Your task to perform on an android device: check battery use Image 0: 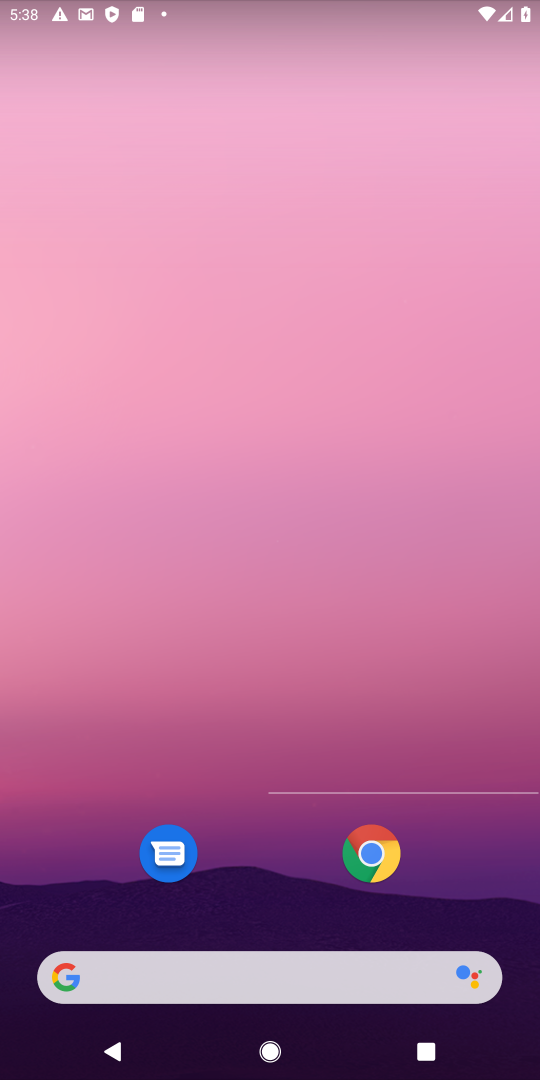
Step 0: drag from (417, 565) to (394, 271)
Your task to perform on an android device: check battery use Image 1: 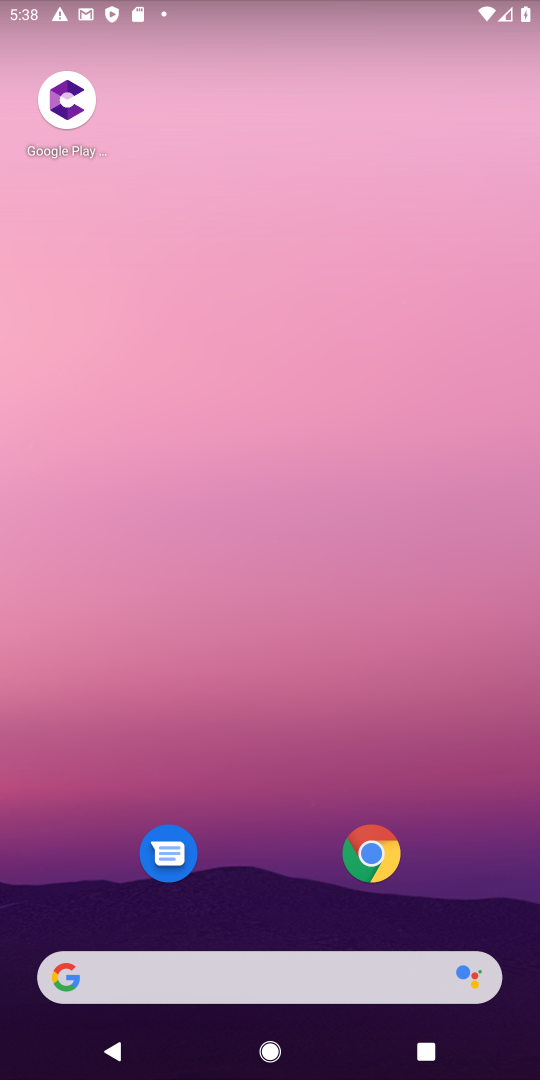
Step 1: drag from (458, 926) to (345, 284)
Your task to perform on an android device: check battery use Image 2: 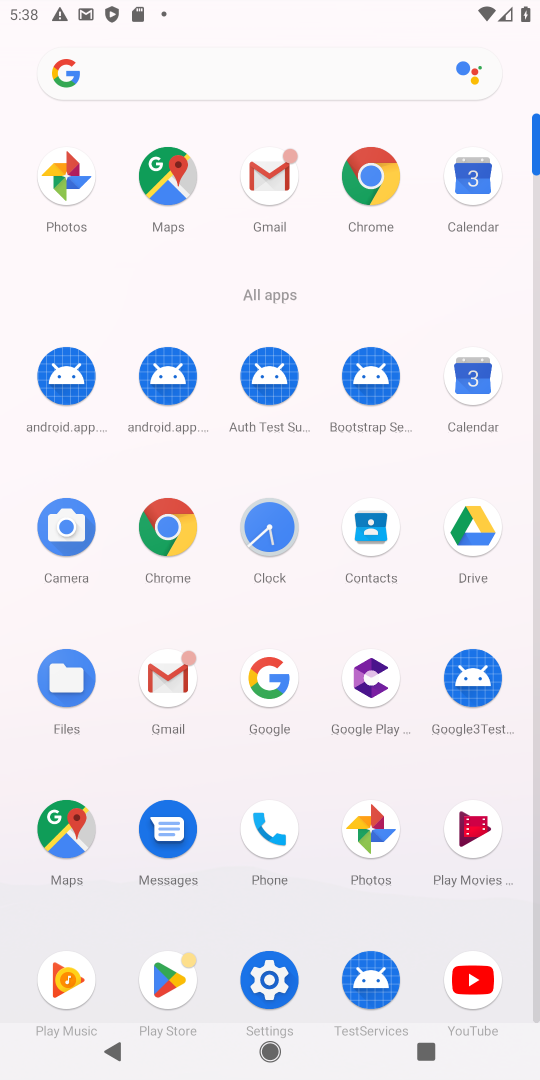
Step 2: click (272, 975)
Your task to perform on an android device: check battery use Image 3: 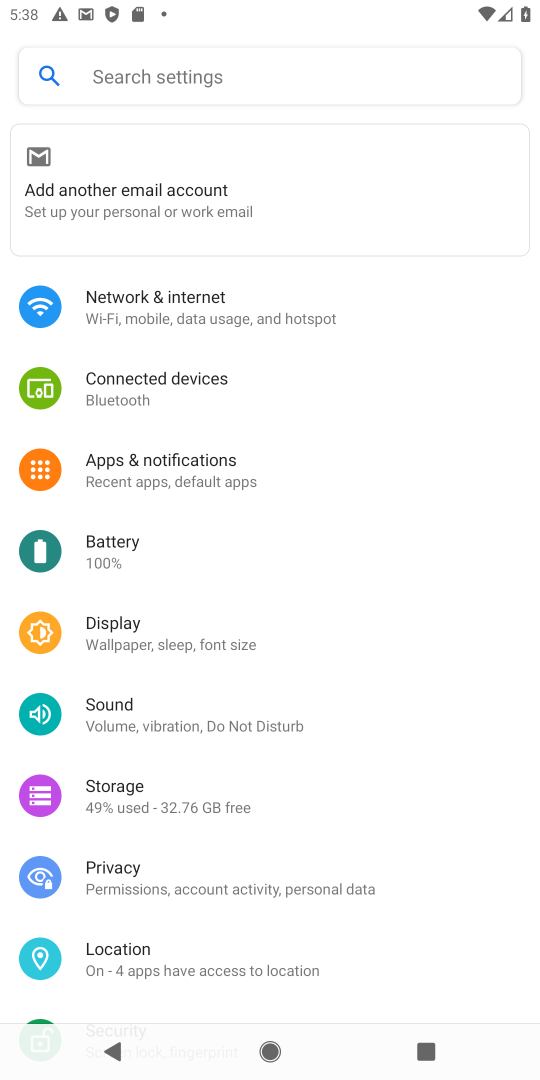
Step 3: click (160, 539)
Your task to perform on an android device: check battery use Image 4: 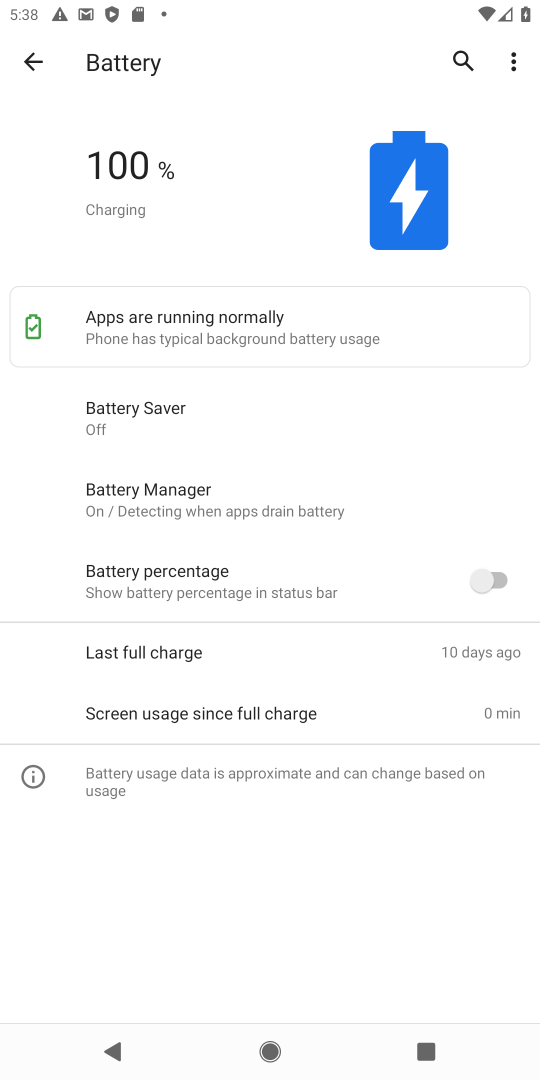
Step 4: click (508, 53)
Your task to perform on an android device: check battery use Image 5: 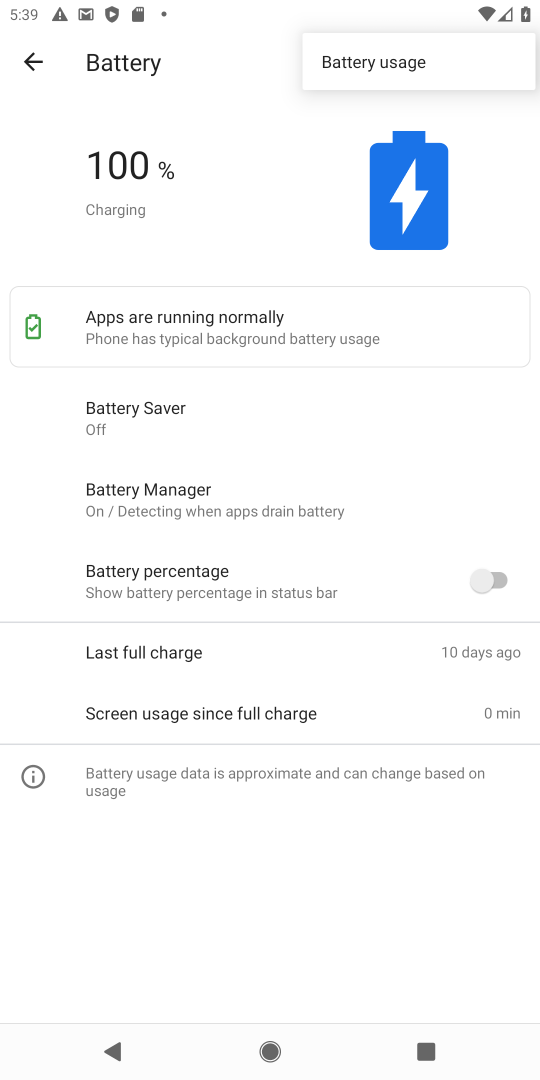
Step 5: click (371, 63)
Your task to perform on an android device: check battery use Image 6: 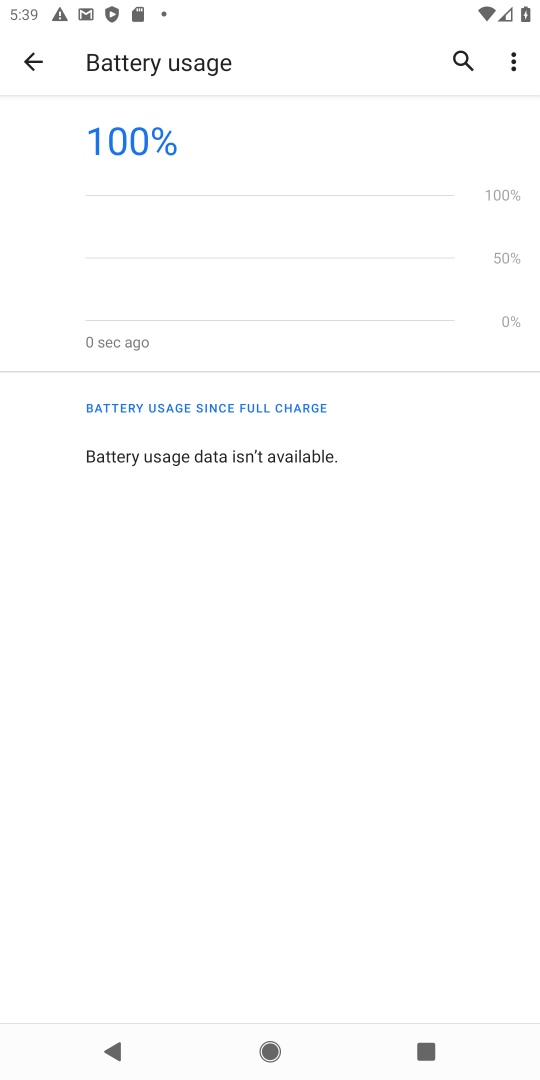
Step 6: task complete